Your task to perform on an android device: Show me productivity apps on the Play Store Image 0: 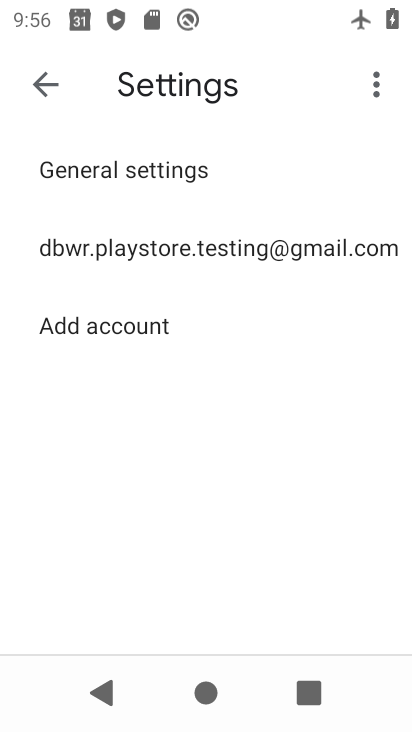
Step 0: press home button
Your task to perform on an android device: Show me productivity apps on the Play Store Image 1: 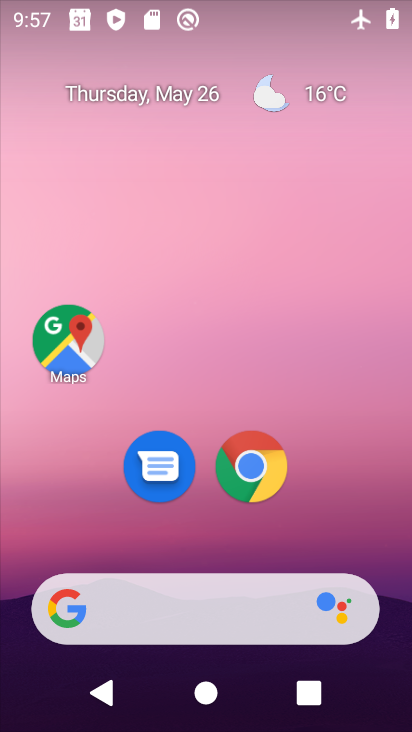
Step 1: drag from (342, 510) to (275, 23)
Your task to perform on an android device: Show me productivity apps on the Play Store Image 2: 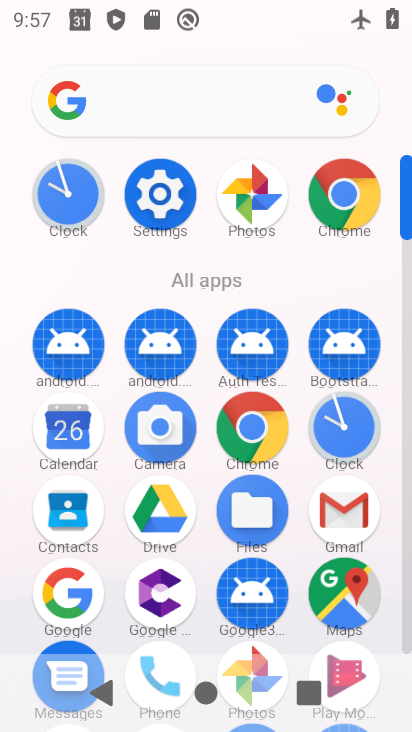
Step 2: drag from (206, 549) to (192, 283)
Your task to perform on an android device: Show me productivity apps on the Play Store Image 3: 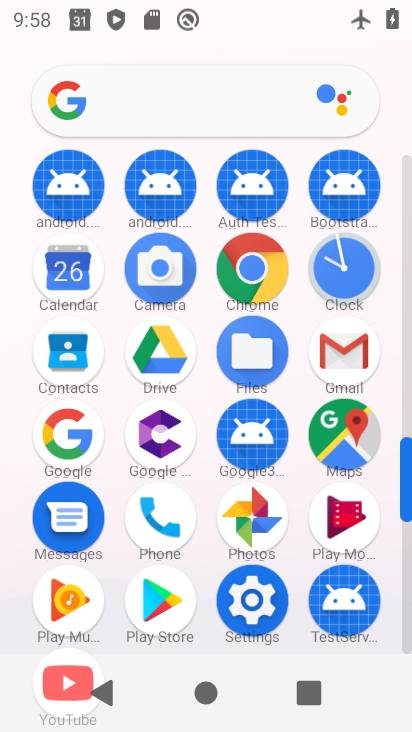
Step 3: click (165, 596)
Your task to perform on an android device: Show me productivity apps on the Play Store Image 4: 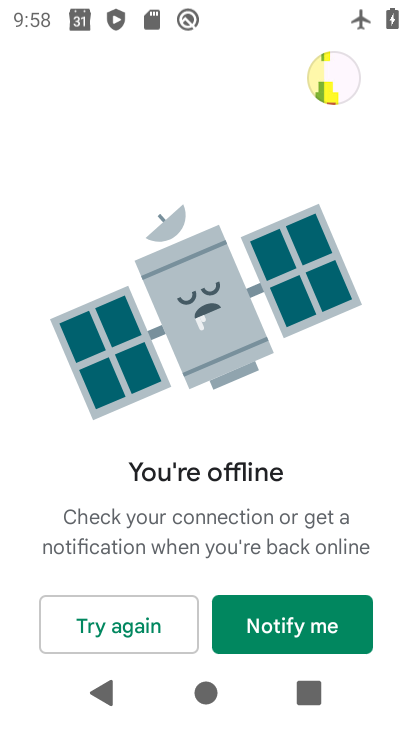
Step 4: click (171, 628)
Your task to perform on an android device: Show me productivity apps on the Play Store Image 5: 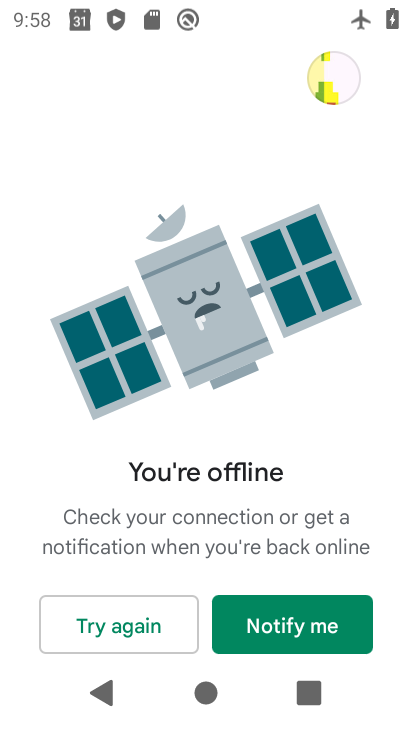
Step 5: task complete